Your task to perform on an android device: turn on showing notifications on the lock screen Image 0: 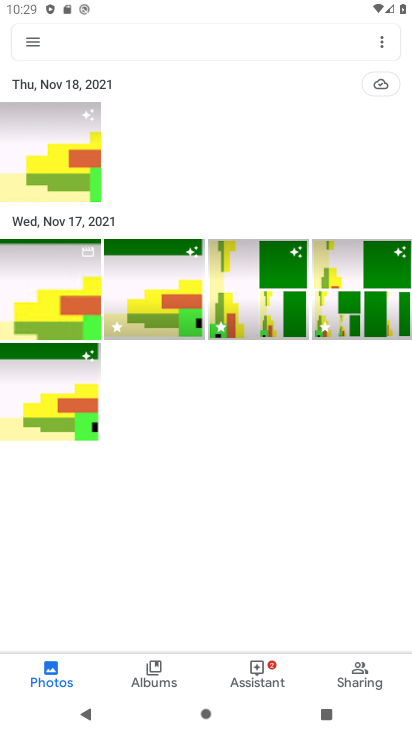
Step 0: press back button
Your task to perform on an android device: turn on showing notifications on the lock screen Image 1: 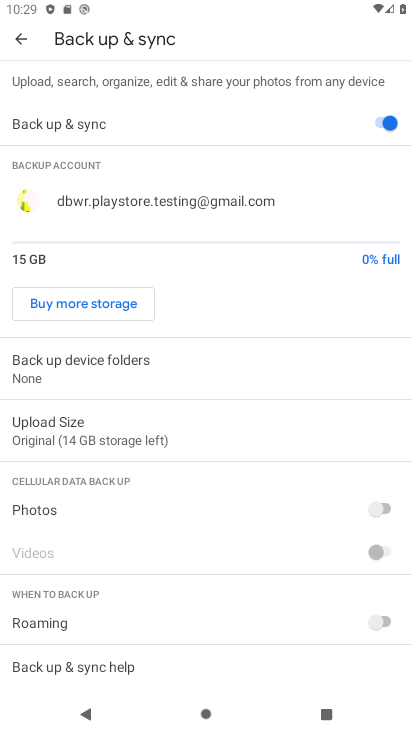
Step 1: press home button
Your task to perform on an android device: turn on showing notifications on the lock screen Image 2: 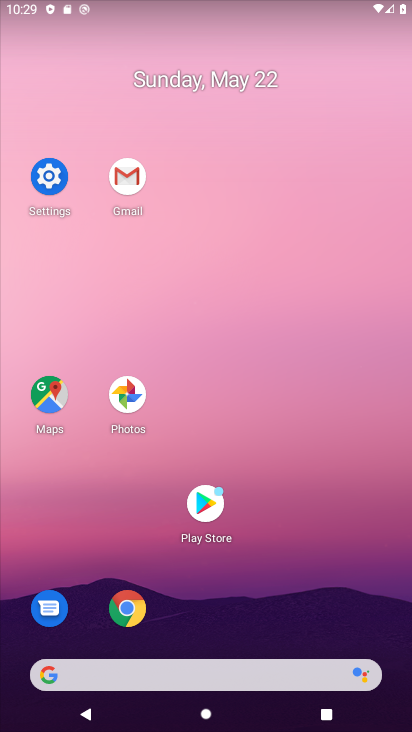
Step 2: click (36, 182)
Your task to perform on an android device: turn on showing notifications on the lock screen Image 3: 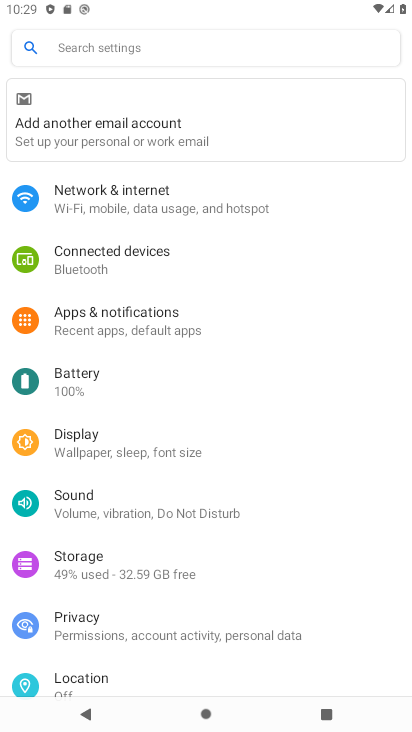
Step 3: click (166, 304)
Your task to perform on an android device: turn on showing notifications on the lock screen Image 4: 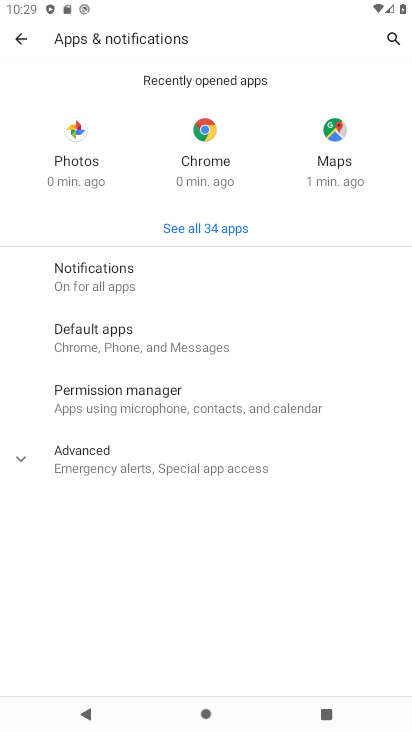
Step 4: click (131, 281)
Your task to perform on an android device: turn on showing notifications on the lock screen Image 5: 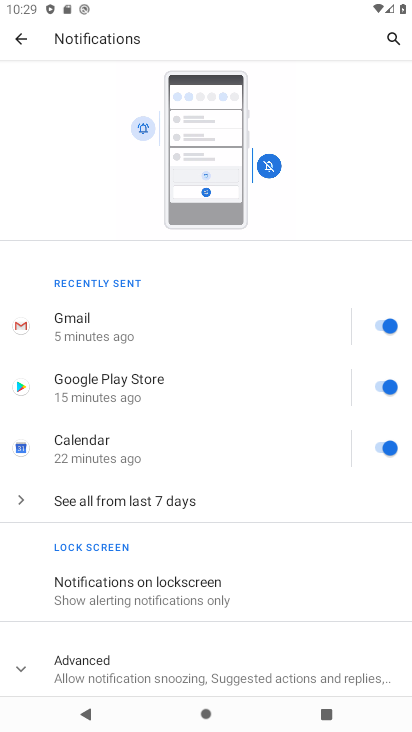
Step 5: click (142, 593)
Your task to perform on an android device: turn on showing notifications on the lock screen Image 6: 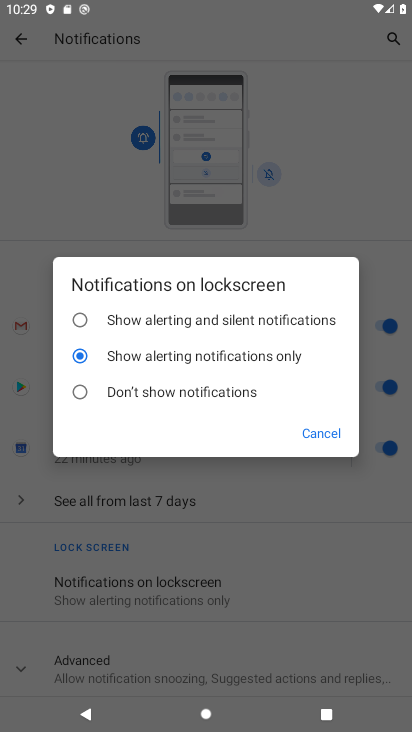
Step 6: click (97, 313)
Your task to perform on an android device: turn on showing notifications on the lock screen Image 7: 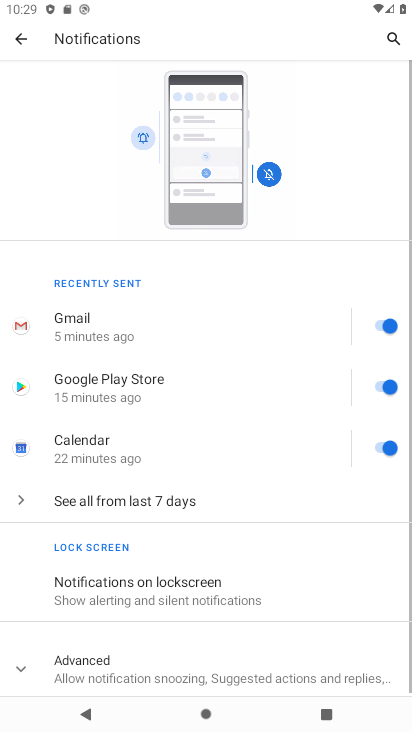
Step 7: task complete